Your task to perform on an android device: turn off wifi Image 0: 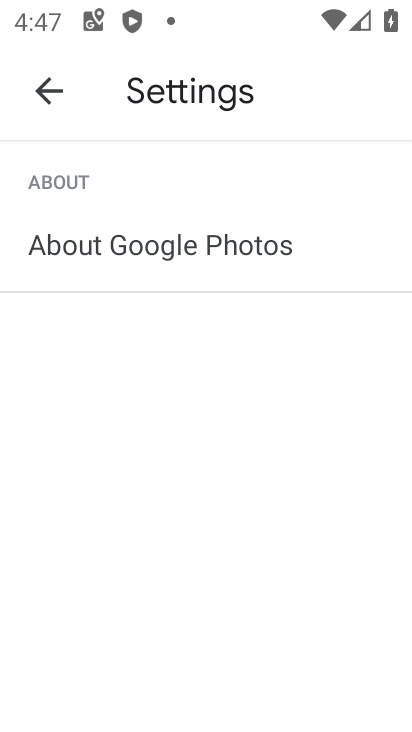
Step 0: press back button
Your task to perform on an android device: turn off wifi Image 1: 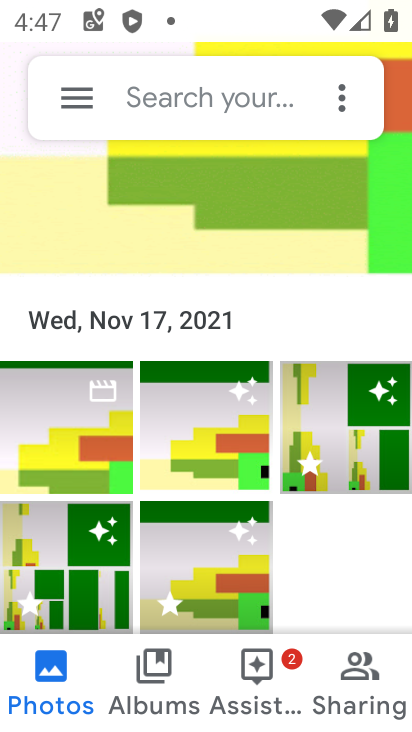
Step 1: press home button
Your task to perform on an android device: turn off wifi Image 2: 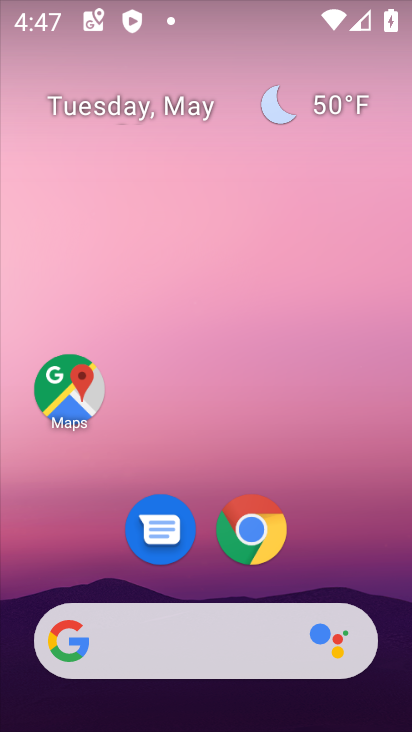
Step 2: drag from (335, 551) to (279, 2)
Your task to perform on an android device: turn off wifi Image 3: 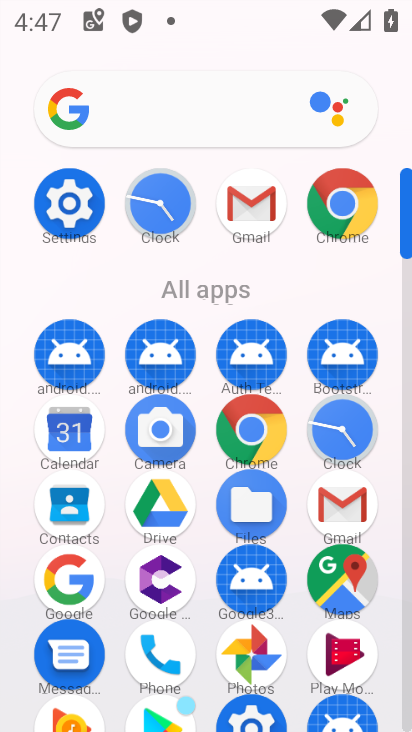
Step 3: click (71, 198)
Your task to perform on an android device: turn off wifi Image 4: 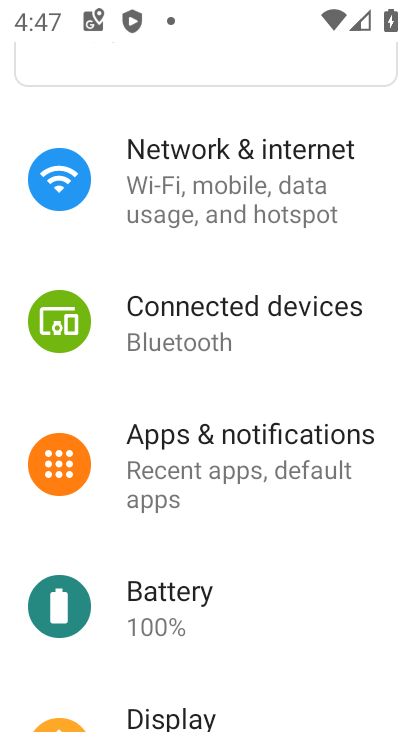
Step 4: drag from (222, 175) to (248, 612)
Your task to perform on an android device: turn off wifi Image 5: 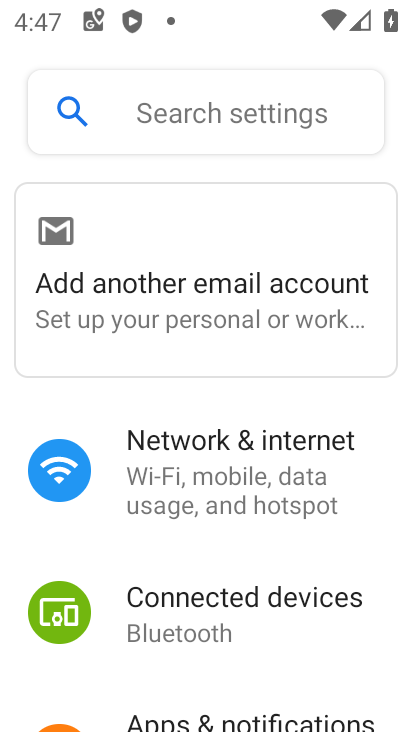
Step 5: click (187, 453)
Your task to perform on an android device: turn off wifi Image 6: 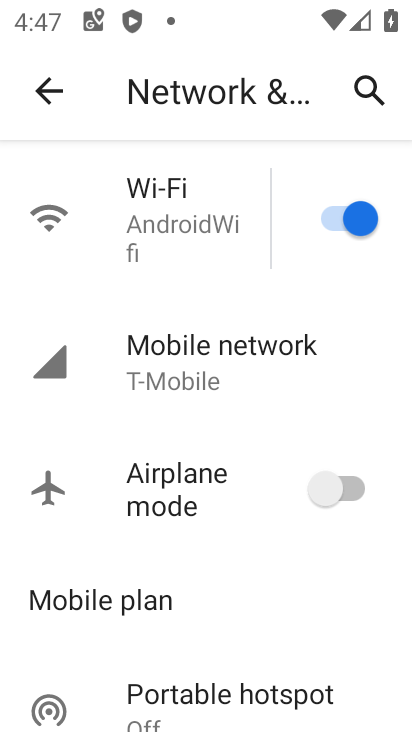
Step 6: click (330, 214)
Your task to perform on an android device: turn off wifi Image 7: 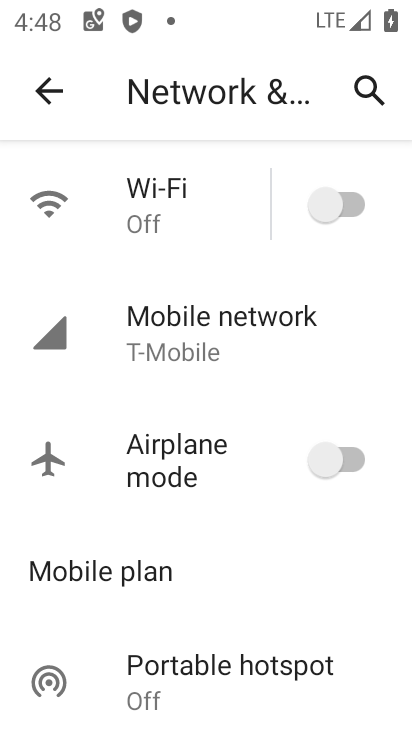
Step 7: task complete